Your task to perform on an android device: Open Chrome and go to settings Image 0: 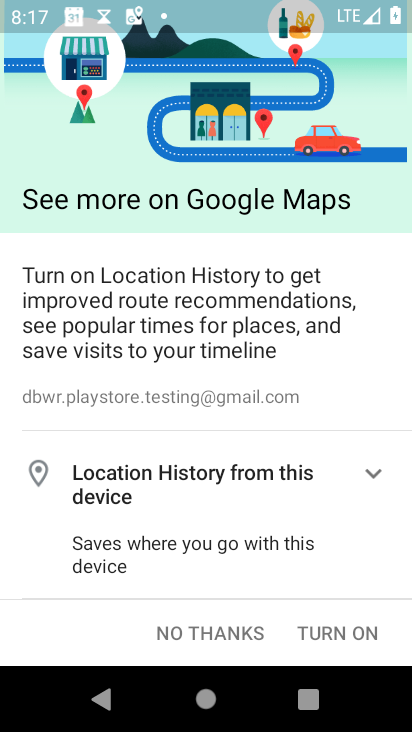
Step 0: press home button
Your task to perform on an android device: Open Chrome and go to settings Image 1: 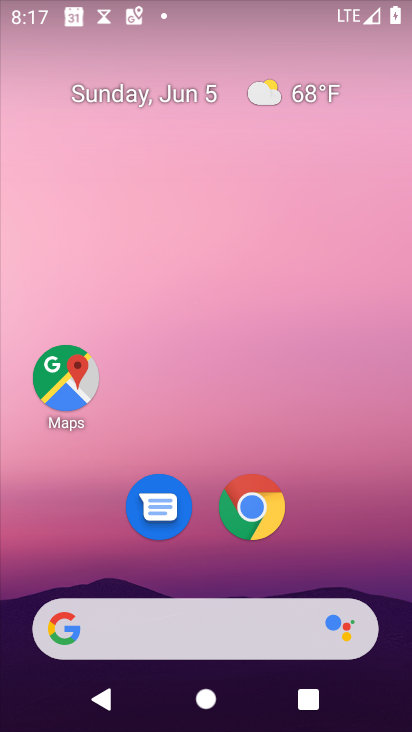
Step 1: click (249, 525)
Your task to perform on an android device: Open Chrome and go to settings Image 2: 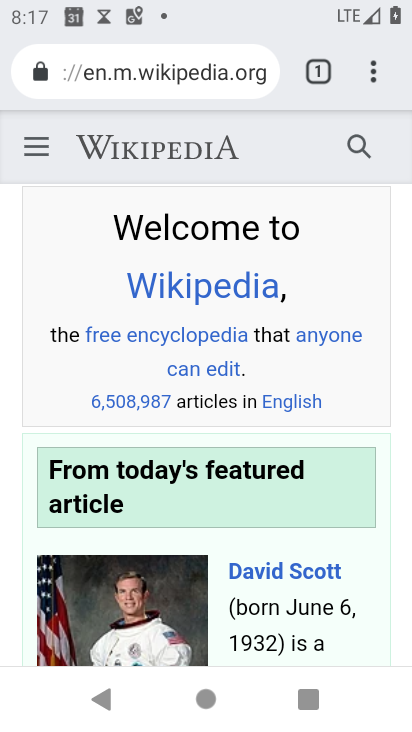
Step 2: click (368, 77)
Your task to perform on an android device: Open Chrome and go to settings Image 3: 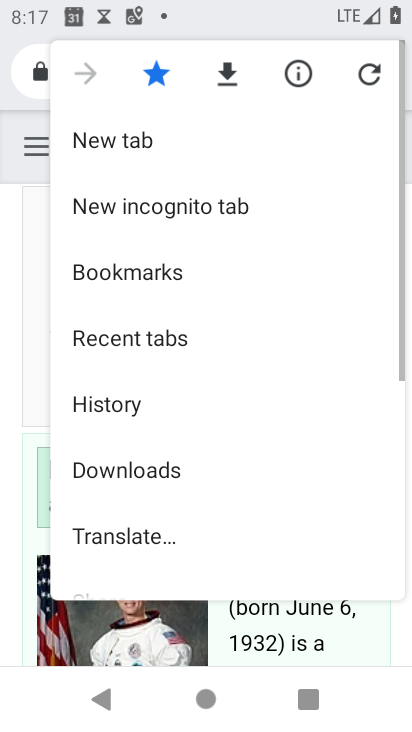
Step 3: drag from (193, 494) to (228, 185)
Your task to perform on an android device: Open Chrome and go to settings Image 4: 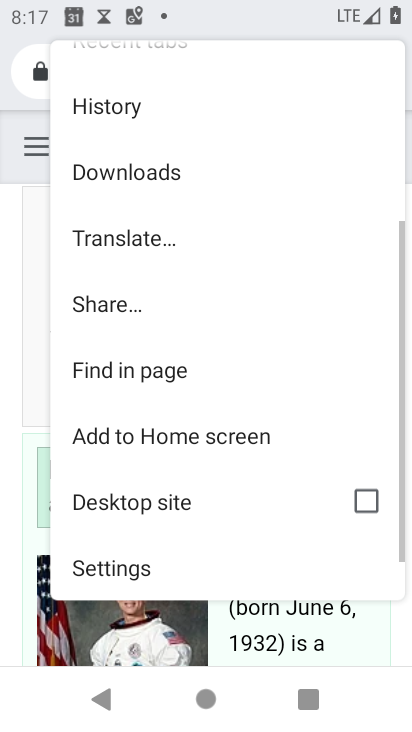
Step 4: drag from (181, 504) to (223, 155)
Your task to perform on an android device: Open Chrome and go to settings Image 5: 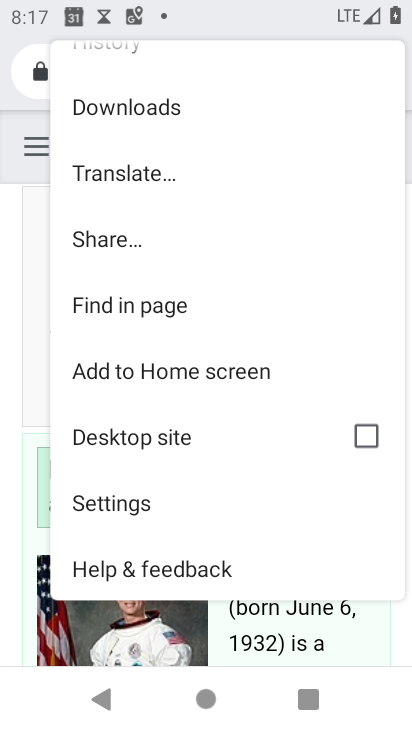
Step 5: click (135, 516)
Your task to perform on an android device: Open Chrome and go to settings Image 6: 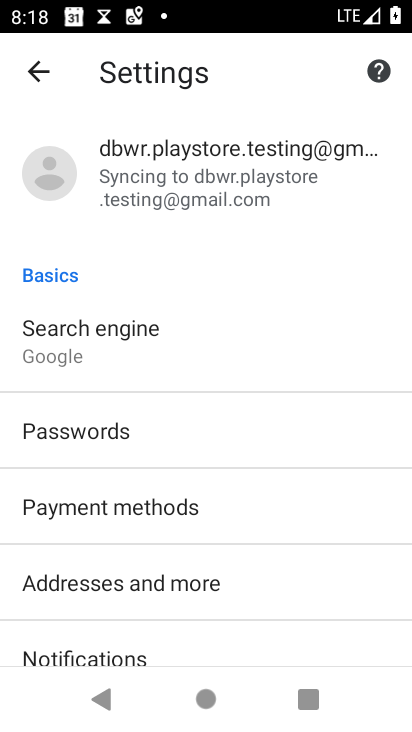
Step 6: task complete